Your task to perform on an android device: make emails show in primary in the gmail app Image 0: 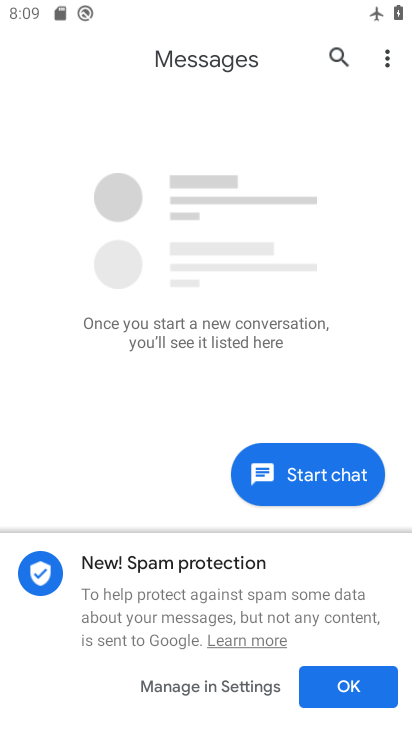
Step 0: press home button
Your task to perform on an android device: make emails show in primary in the gmail app Image 1: 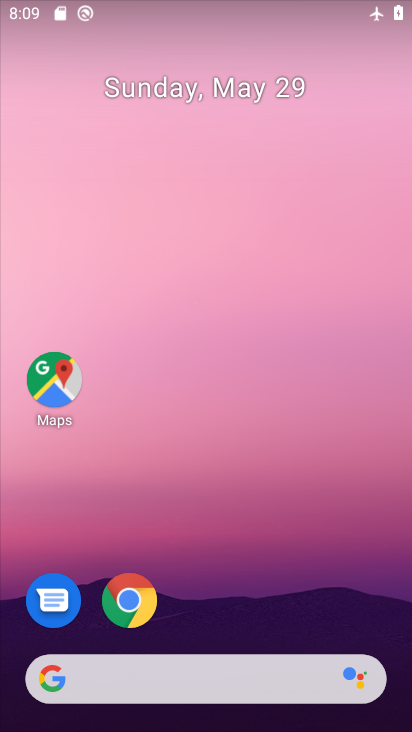
Step 1: drag from (192, 647) to (215, 129)
Your task to perform on an android device: make emails show in primary in the gmail app Image 2: 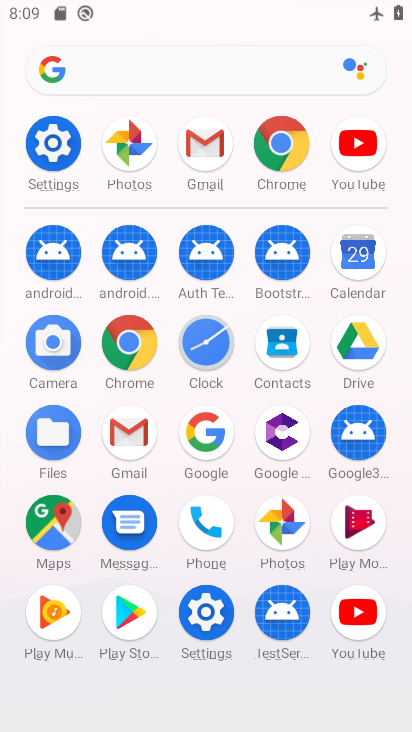
Step 2: click (127, 444)
Your task to perform on an android device: make emails show in primary in the gmail app Image 3: 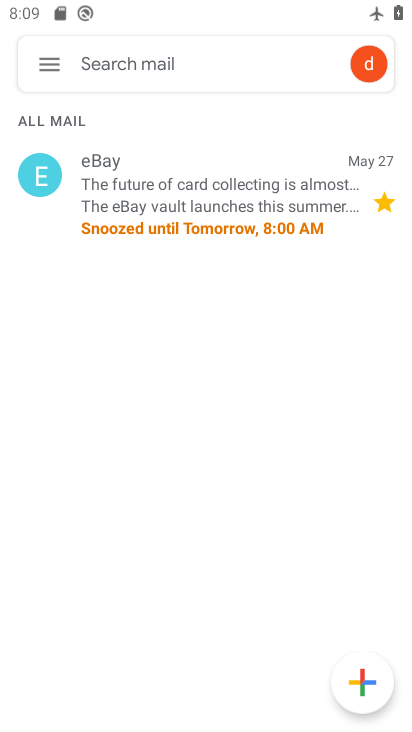
Step 3: click (51, 54)
Your task to perform on an android device: make emails show in primary in the gmail app Image 4: 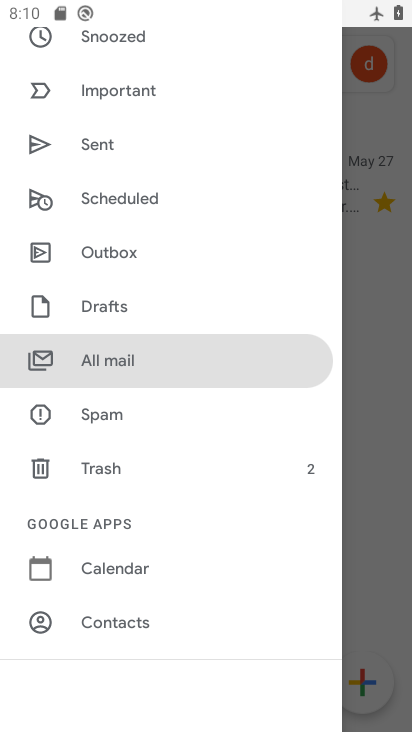
Step 4: drag from (121, 578) to (188, 21)
Your task to perform on an android device: make emails show in primary in the gmail app Image 5: 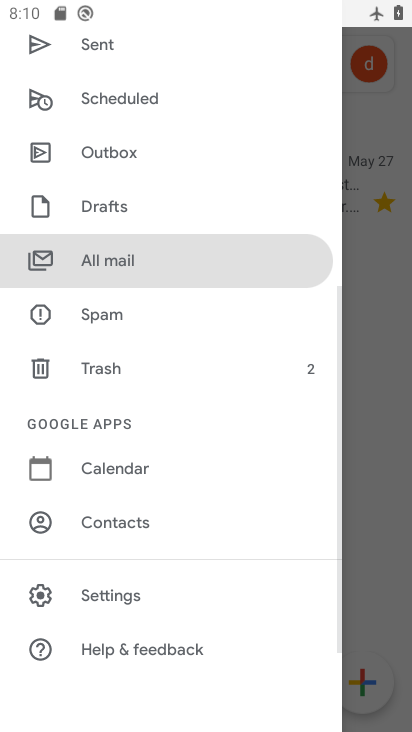
Step 5: click (129, 586)
Your task to perform on an android device: make emails show in primary in the gmail app Image 6: 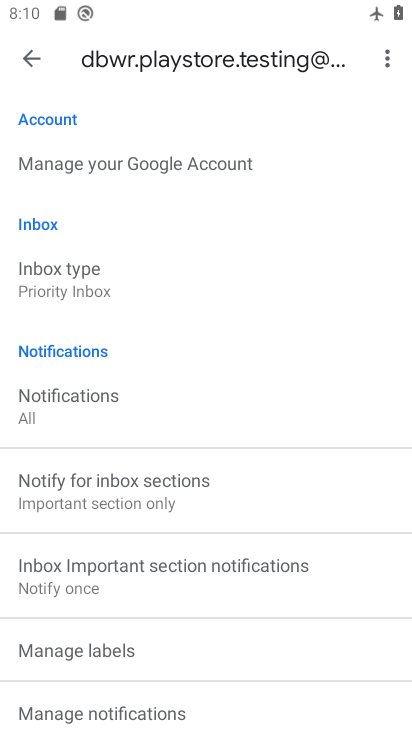
Step 6: click (100, 297)
Your task to perform on an android device: make emails show in primary in the gmail app Image 7: 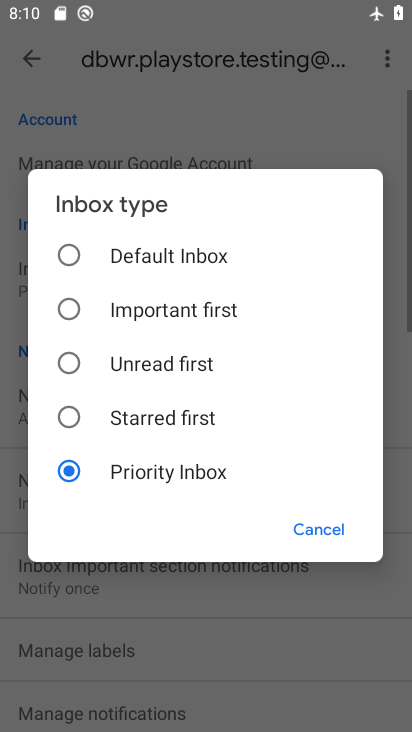
Step 7: click (131, 250)
Your task to perform on an android device: make emails show in primary in the gmail app Image 8: 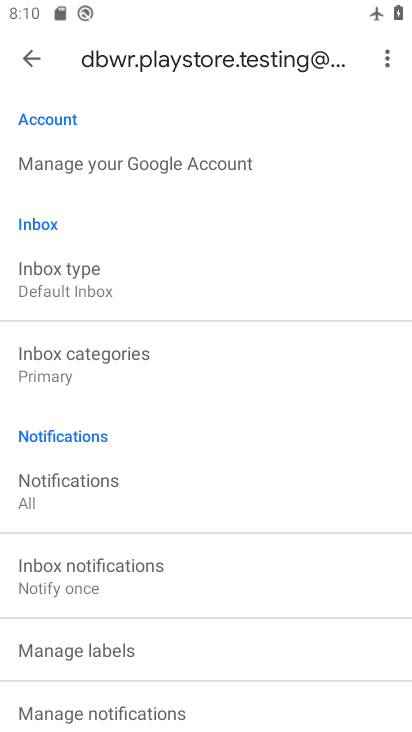
Step 8: task complete